Your task to perform on an android device: Go to Yahoo.com Image 0: 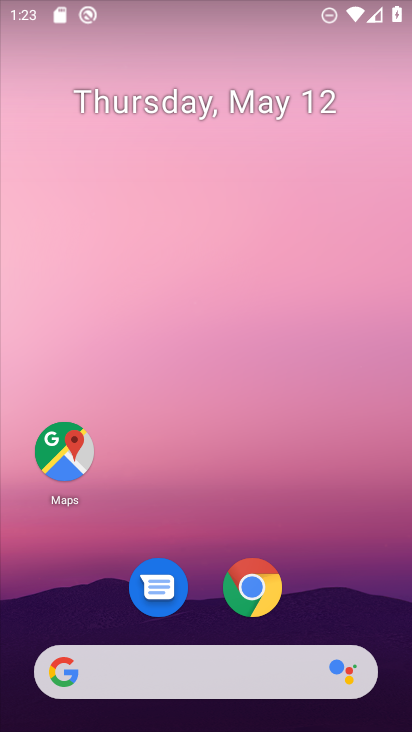
Step 0: click (252, 587)
Your task to perform on an android device: Go to Yahoo.com Image 1: 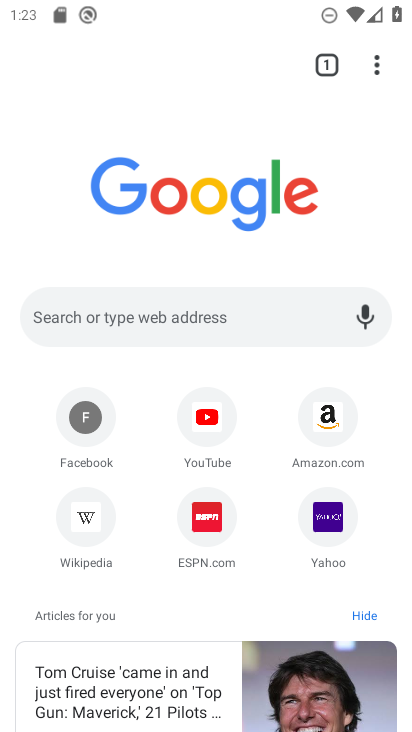
Step 1: click (246, 312)
Your task to perform on an android device: Go to Yahoo.com Image 2: 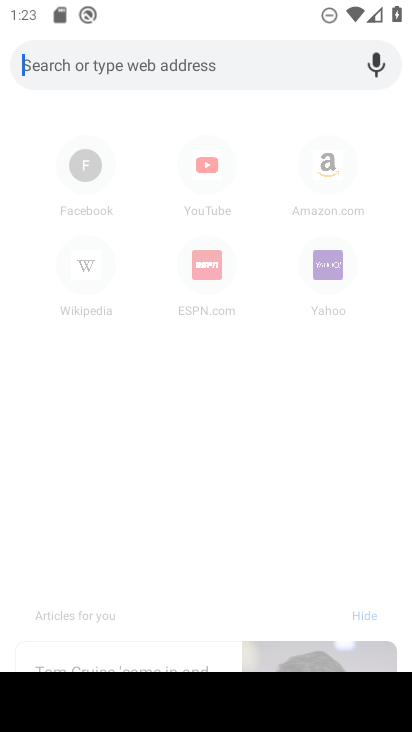
Step 2: type "Yahoo.com"
Your task to perform on an android device: Go to Yahoo.com Image 3: 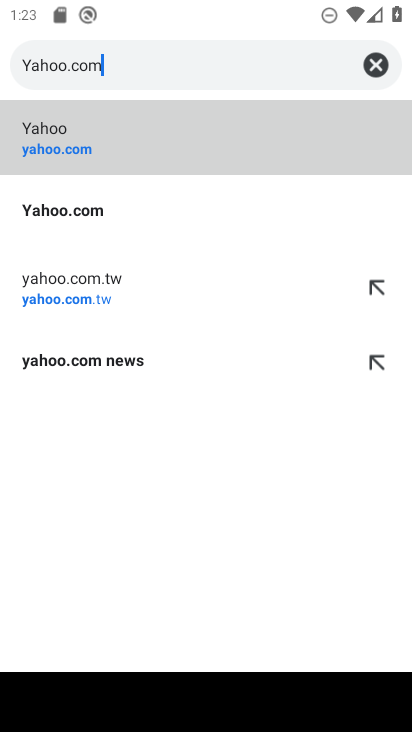
Step 3: click (83, 212)
Your task to perform on an android device: Go to Yahoo.com Image 4: 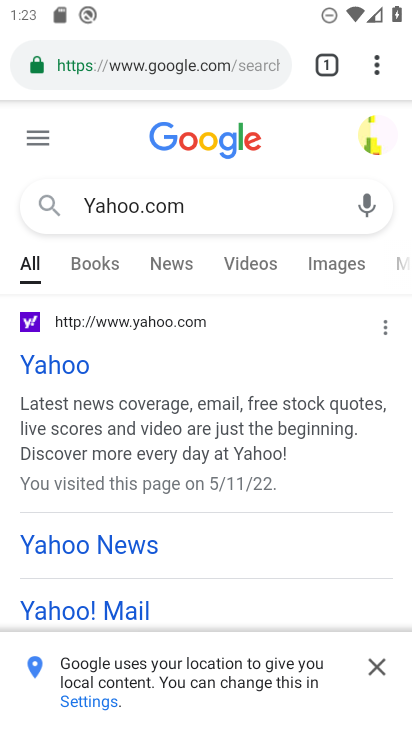
Step 4: click (51, 361)
Your task to perform on an android device: Go to Yahoo.com Image 5: 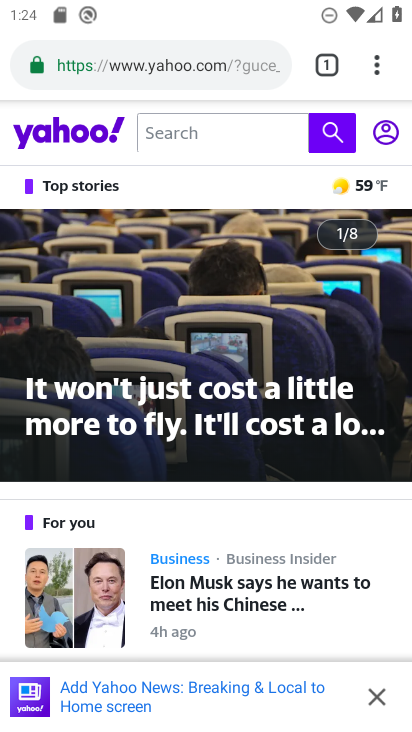
Step 5: task complete